Your task to perform on an android device: turn on bluetooth scan Image 0: 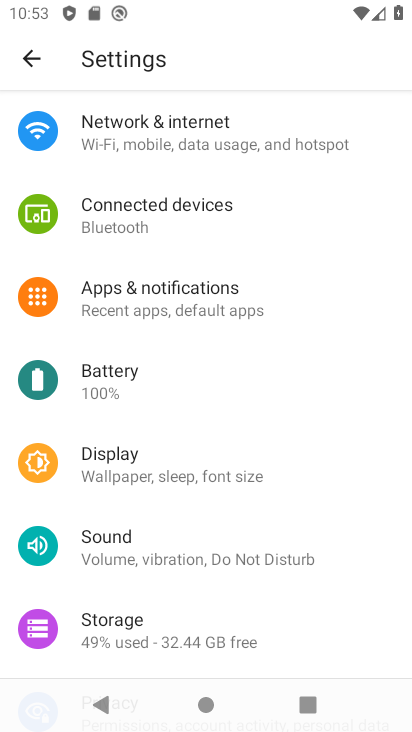
Step 0: drag from (155, 626) to (186, 289)
Your task to perform on an android device: turn on bluetooth scan Image 1: 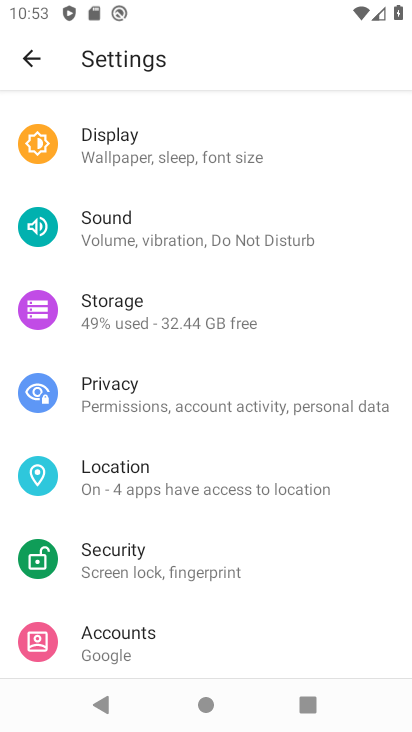
Step 1: click (131, 472)
Your task to perform on an android device: turn on bluetooth scan Image 2: 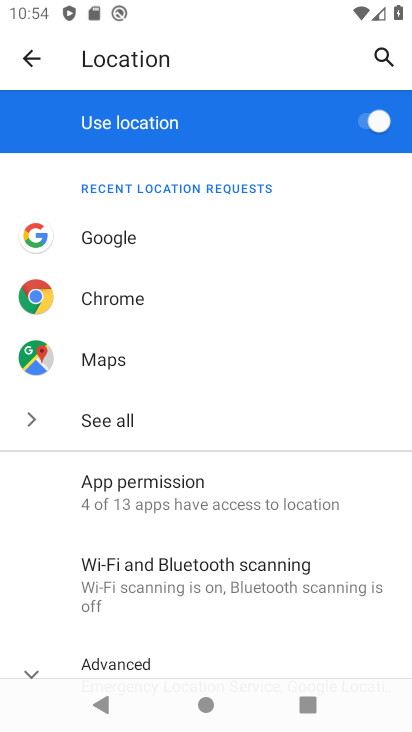
Step 2: click (180, 575)
Your task to perform on an android device: turn on bluetooth scan Image 3: 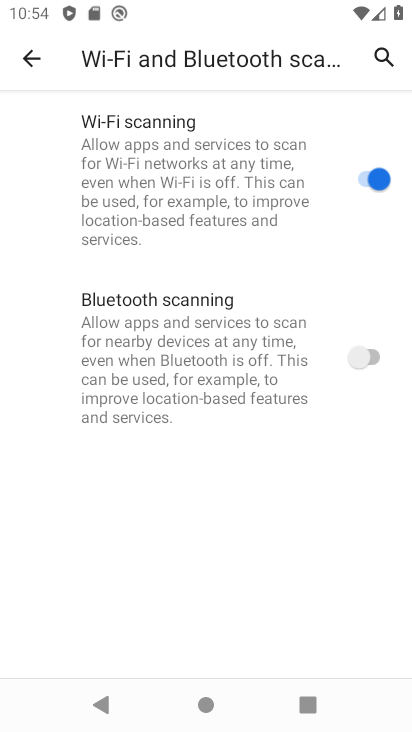
Step 3: click (373, 358)
Your task to perform on an android device: turn on bluetooth scan Image 4: 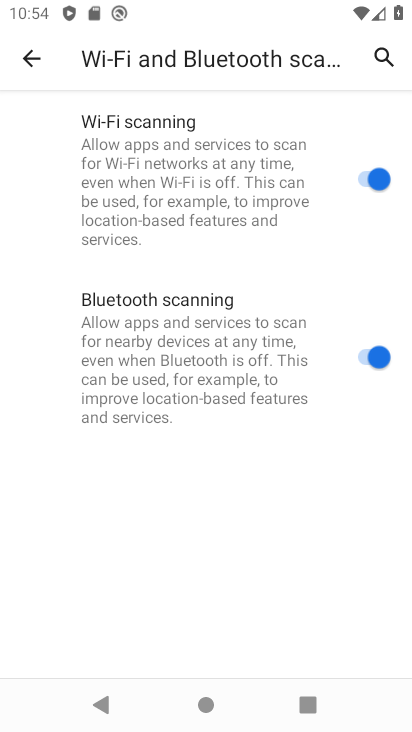
Step 4: task complete